Your task to perform on an android device: How much does a 3 bedroom apartment rent for in Philadelphia? Image 0: 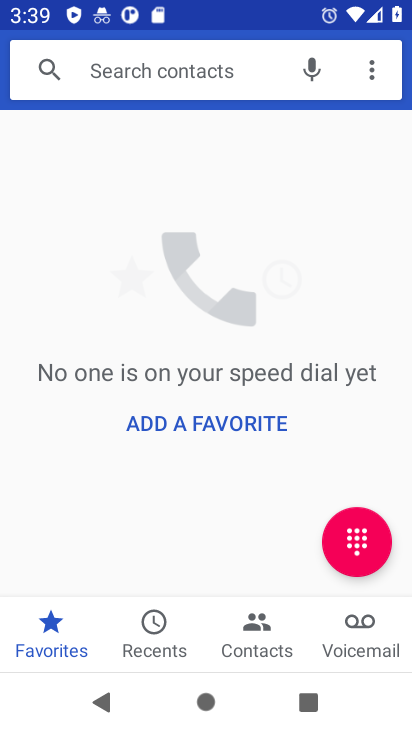
Step 0: press home button
Your task to perform on an android device: How much does a 3 bedroom apartment rent for in Philadelphia? Image 1: 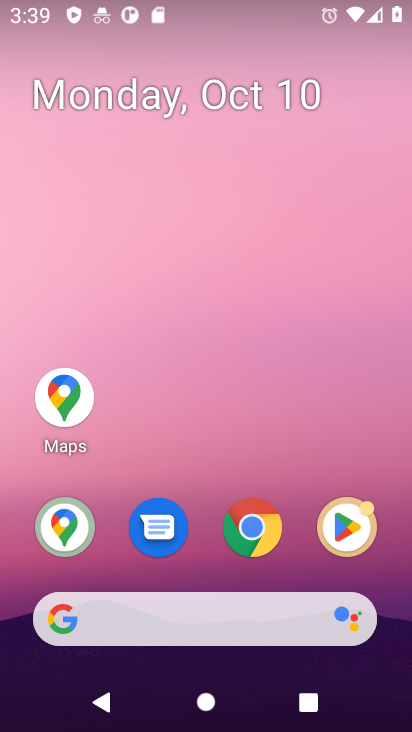
Step 1: click (254, 530)
Your task to perform on an android device: How much does a 3 bedroom apartment rent for in Philadelphia? Image 2: 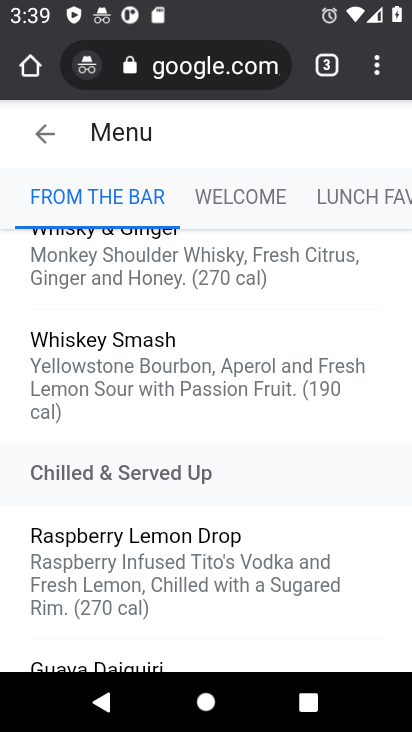
Step 2: click (250, 63)
Your task to perform on an android device: How much does a 3 bedroom apartment rent for in Philadelphia? Image 3: 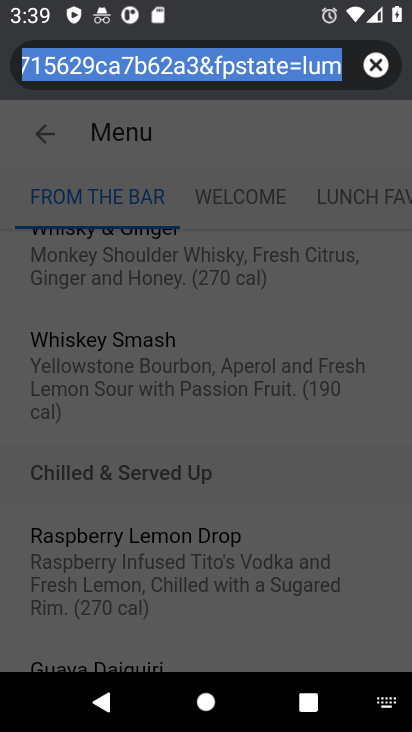
Step 3: click (374, 66)
Your task to perform on an android device: How much does a 3 bedroom apartment rent for in Philadelphia? Image 4: 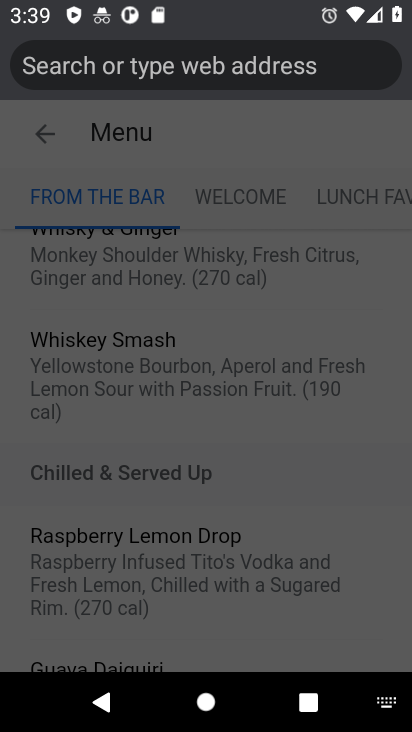
Step 4: click (185, 54)
Your task to perform on an android device: How much does a 3 bedroom apartment rent for in Philadelphia? Image 5: 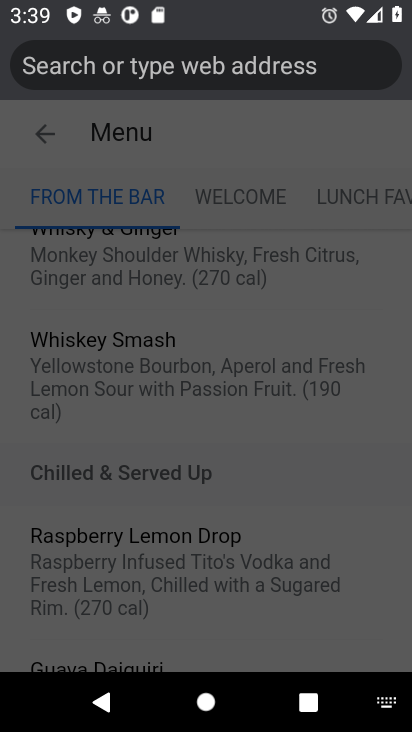
Step 5: type "How much does a 3 bedroom apartment rent for in Philadelphia?"
Your task to perform on an android device: How much does a 3 bedroom apartment rent for in Philadelphia? Image 6: 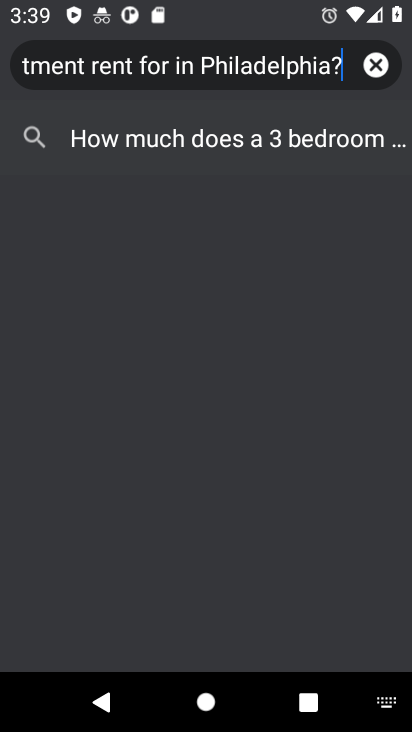
Step 6: type ""
Your task to perform on an android device: How much does a 3 bedroom apartment rent for in Philadelphia? Image 7: 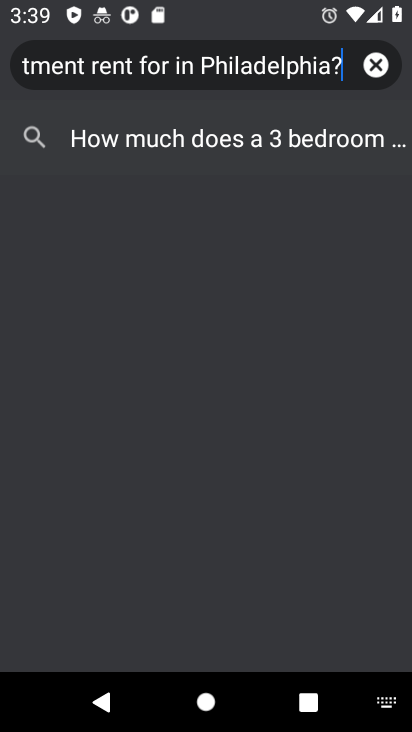
Step 7: click (300, 128)
Your task to perform on an android device: How much does a 3 bedroom apartment rent for in Philadelphia? Image 8: 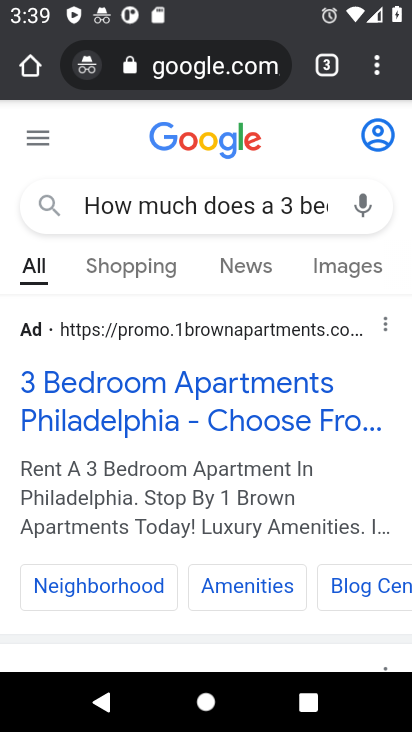
Step 8: drag from (205, 575) to (307, 426)
Your task to perform on an android device: How much does a 3 bedroom apartment rent for in Philadelphia? Image 9: 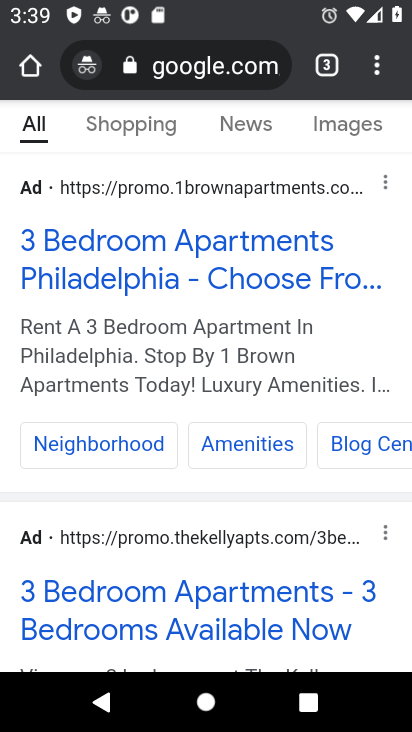
Step 9: drag from (217, 635) to (326, 478)
Your task to perform on an android device: How much does a 3 bedroom apartment rent for in Philadelphia? Image 10: 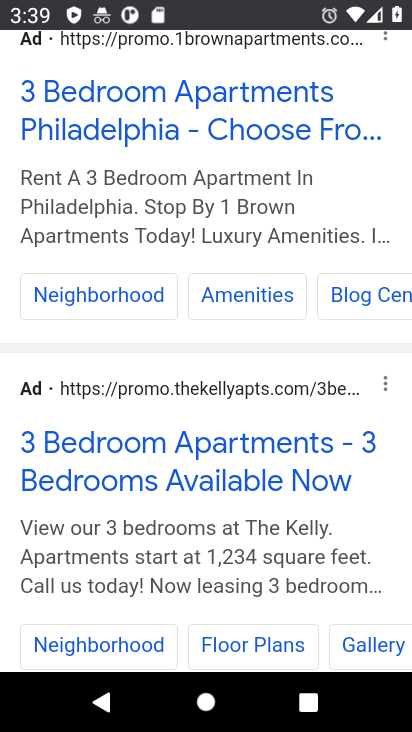
Step 10: drag from (314, 524) to (411, 395)
Your task to perform on an android device: How much does a 3 bedroom apartment rent for in Philadelphia? Image 11: 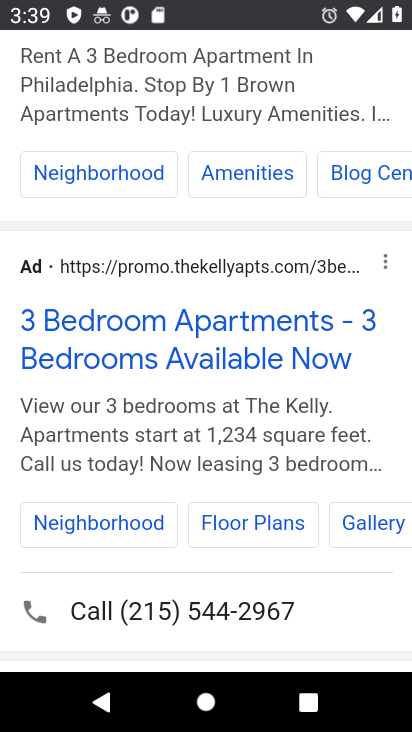
Step 11: drag from (253, 544) to (373, 399)
Your task to perform on an android device: How much does a 3 bedroom apartment rent for in Philadelphia? Image 12: 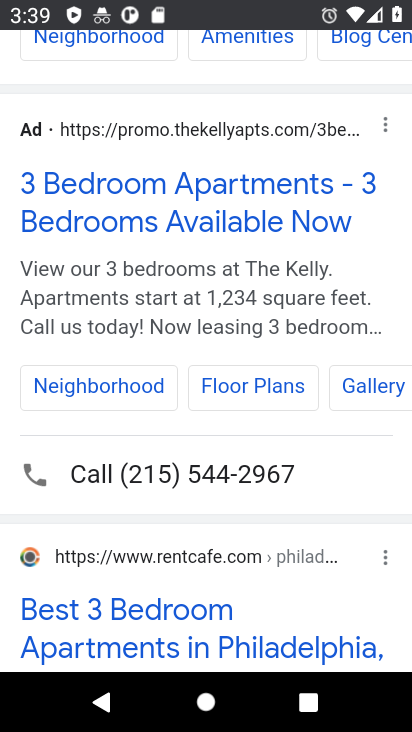
Step 12: drag from (265, 588) to (384, 442)
Your task to perform on an android device: How much does a 3 bedroom apartment rent for in Philadelphia? Image 13: 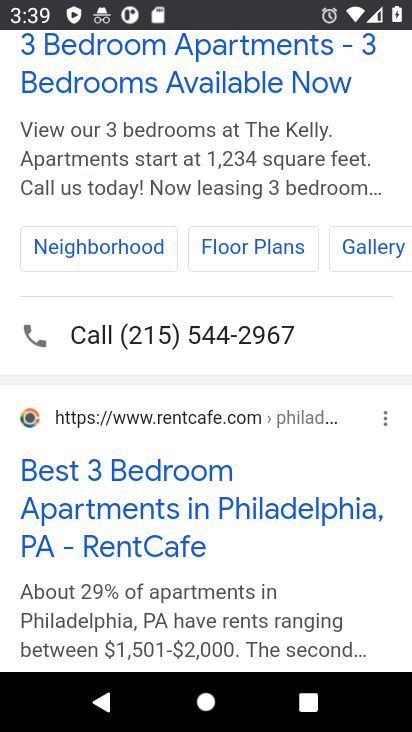
Step 13: click (243, 482)
Your task to perform on an android device: How much does a 3 bedroom apartment rent for in Philadelphia? Image 14: 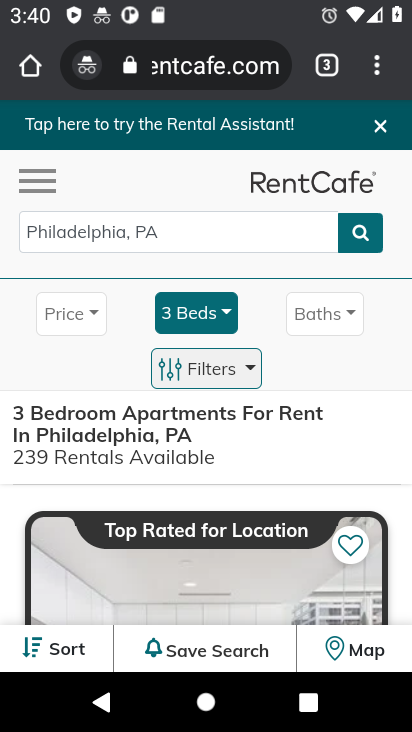
Step 14: task complete